Your task to perform on an android device: Empty the shopping cart on walmart.com. Search for bose soundlink on walmart.com, select the first entry, and add it to the cart. Image 0: 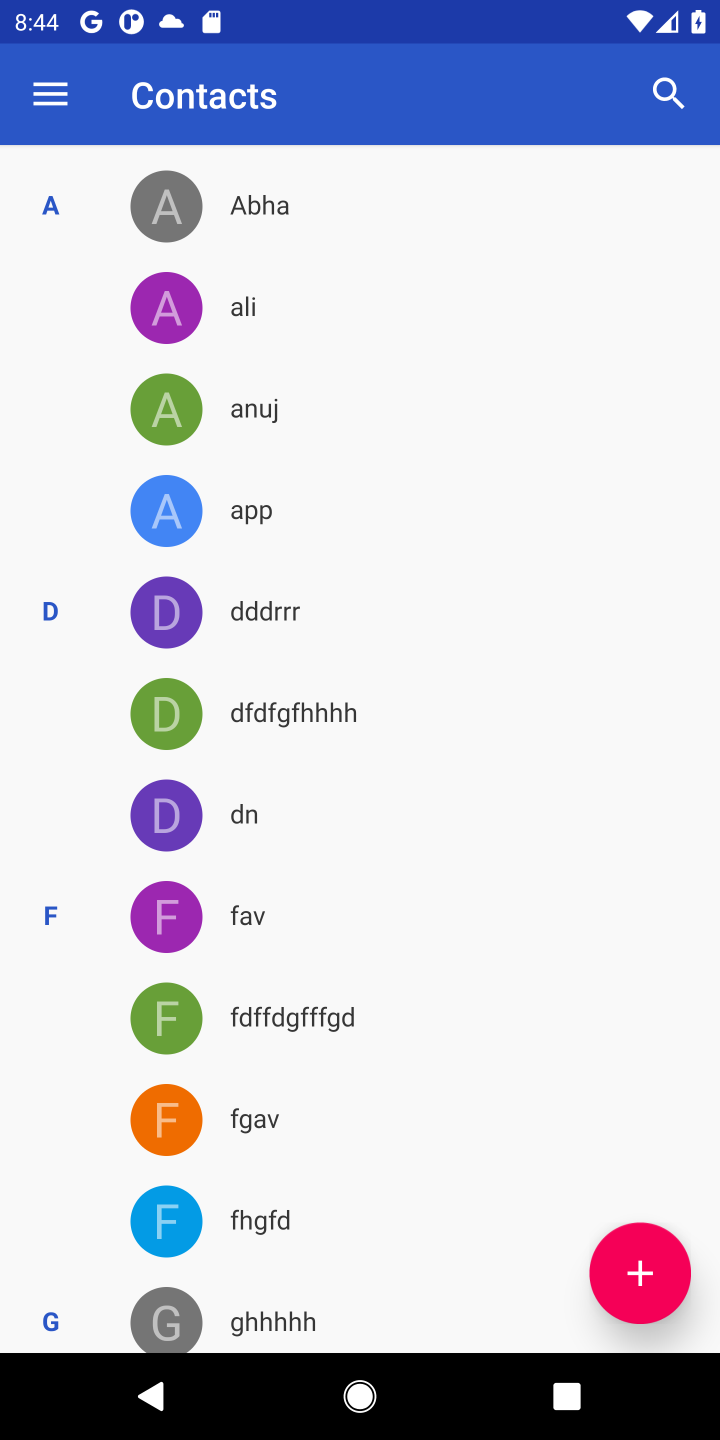
Step 0: press home button
Your task to perform on an android device: Empty the shopping cart on walmart.com. Search for bose soundlink on walmart.com, select the first entry, and add it to the cart. Image 1: 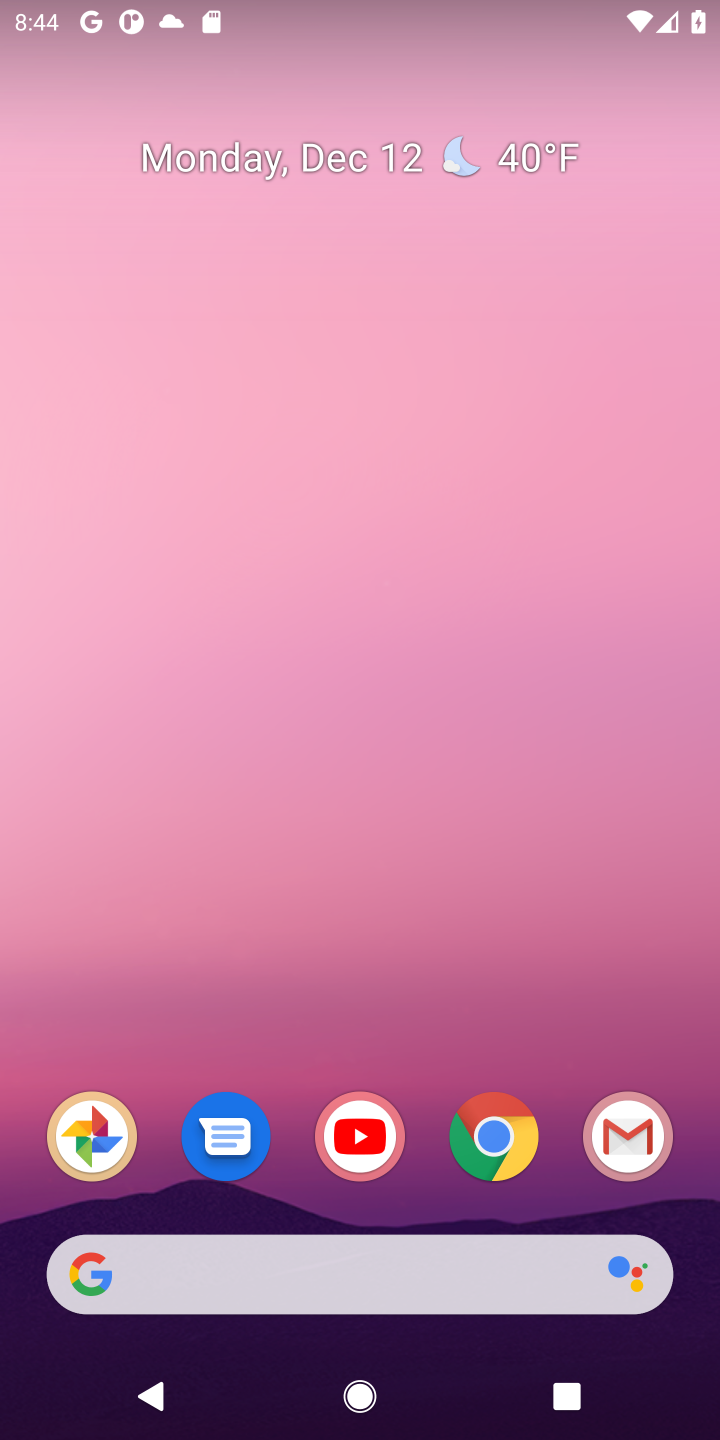
Step 1: click (497, 1141)
Your task to perform on an android device: Empty the shopping cart on walmart.com. Search for bose soundlink on walmart.com, select the first entry, and add it to the cart. Image 2: 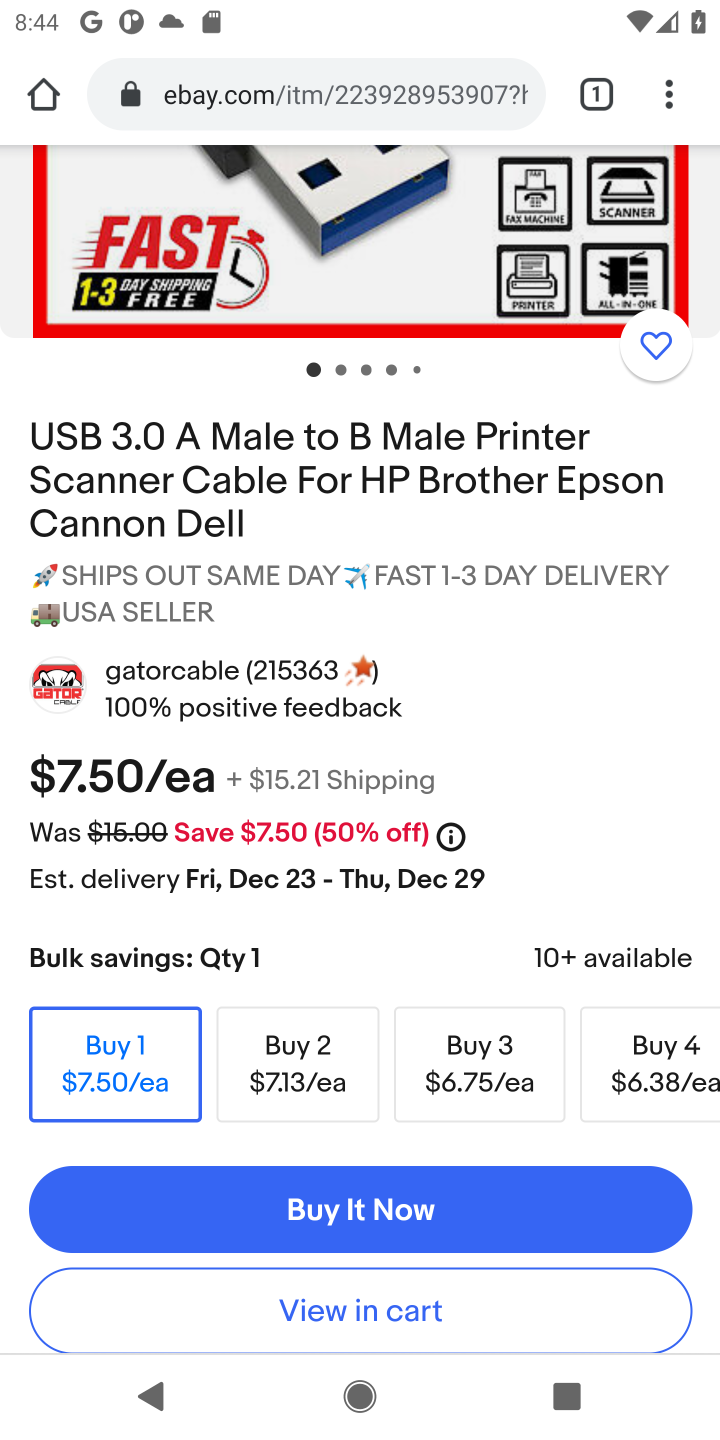
Step 2: click (315, 94)
Your task to perform on an android device: Empty the shopping cart on walmart.com. Search for bose soundlink on walmart.com, select the first entry, and add it to the cart. Image 3: 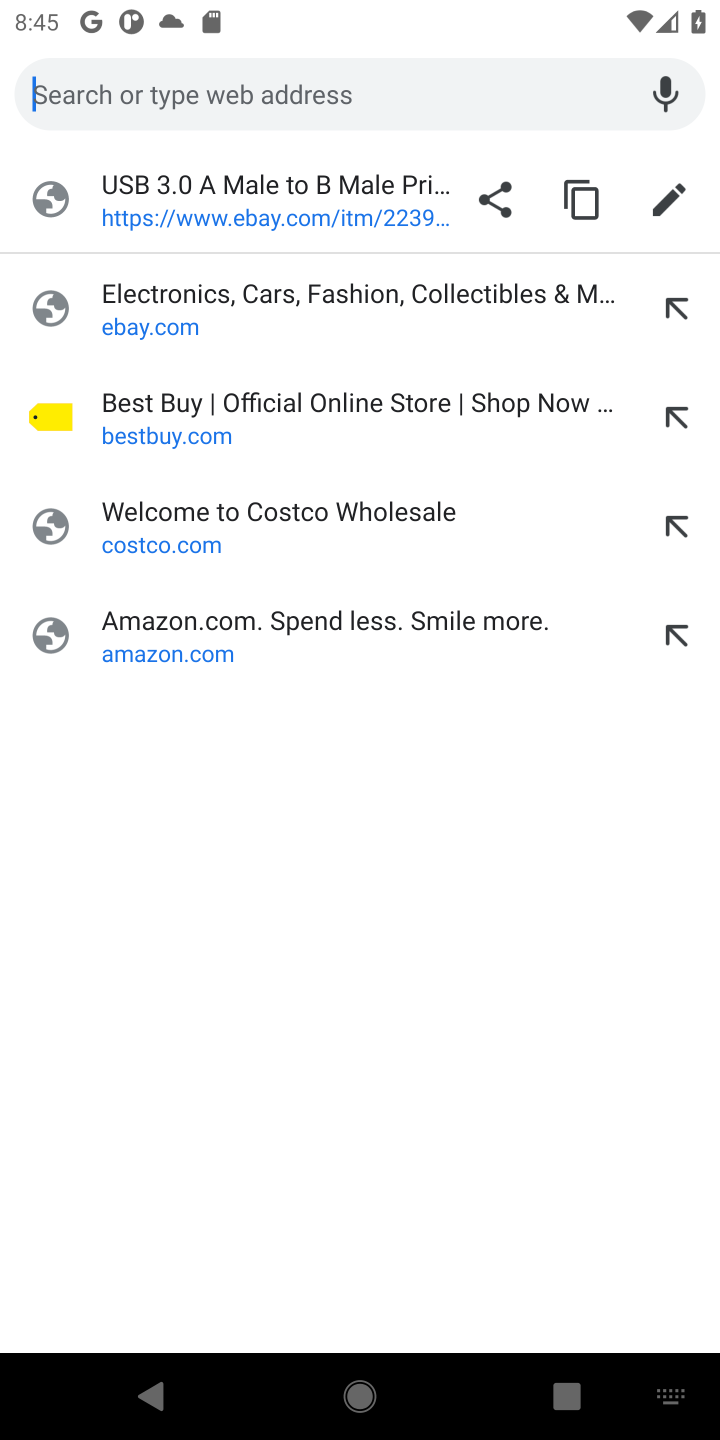
Step 3: type "walmart.com"
Your task to perform on an android device: Empty the shopping cart on walmart.com. Search for bose soundlink on walmart.com, select the first entry, and add it to the cart. Image 4: 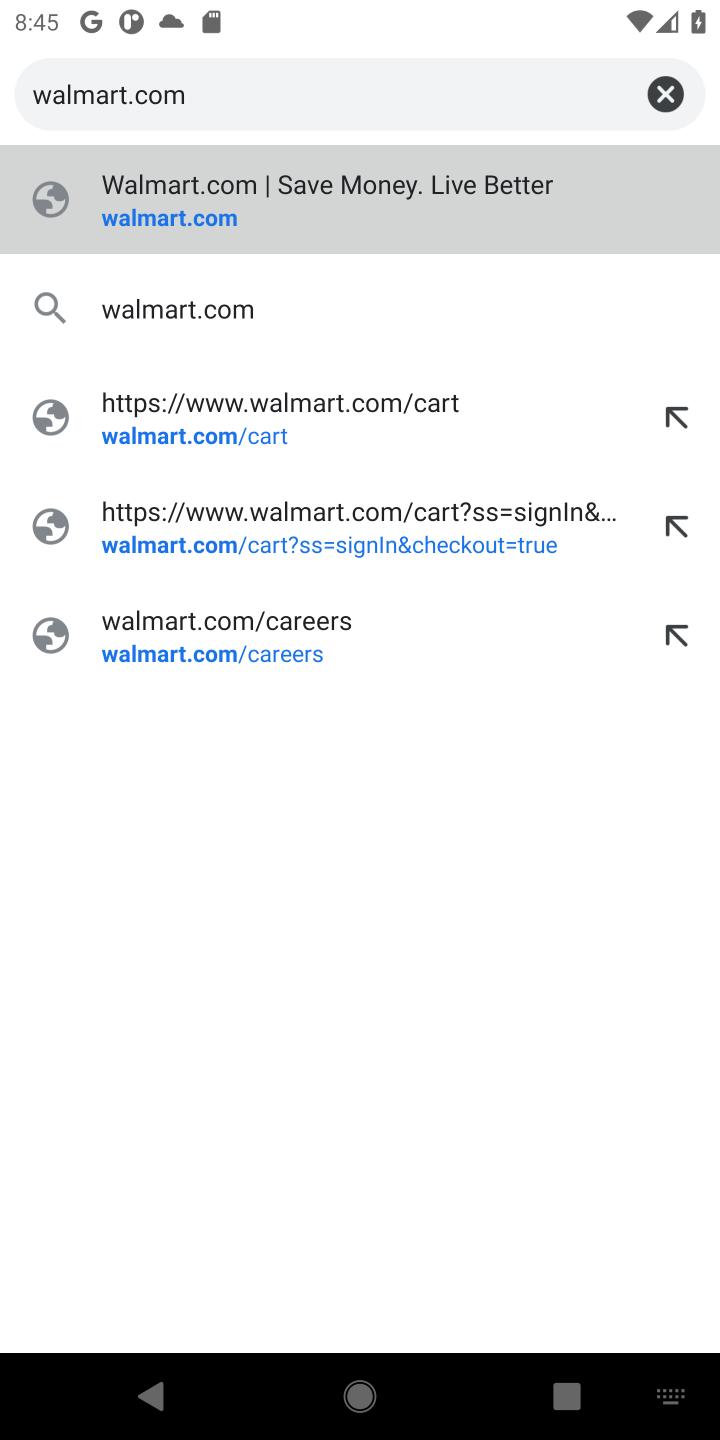
Step 4: click (134, 221)
Your task to perform on an android device: Empty the shopping cart on walmart.com. Search for bose soundlink on walmart.com, select the first entry, and add it to the cart. Image 5: 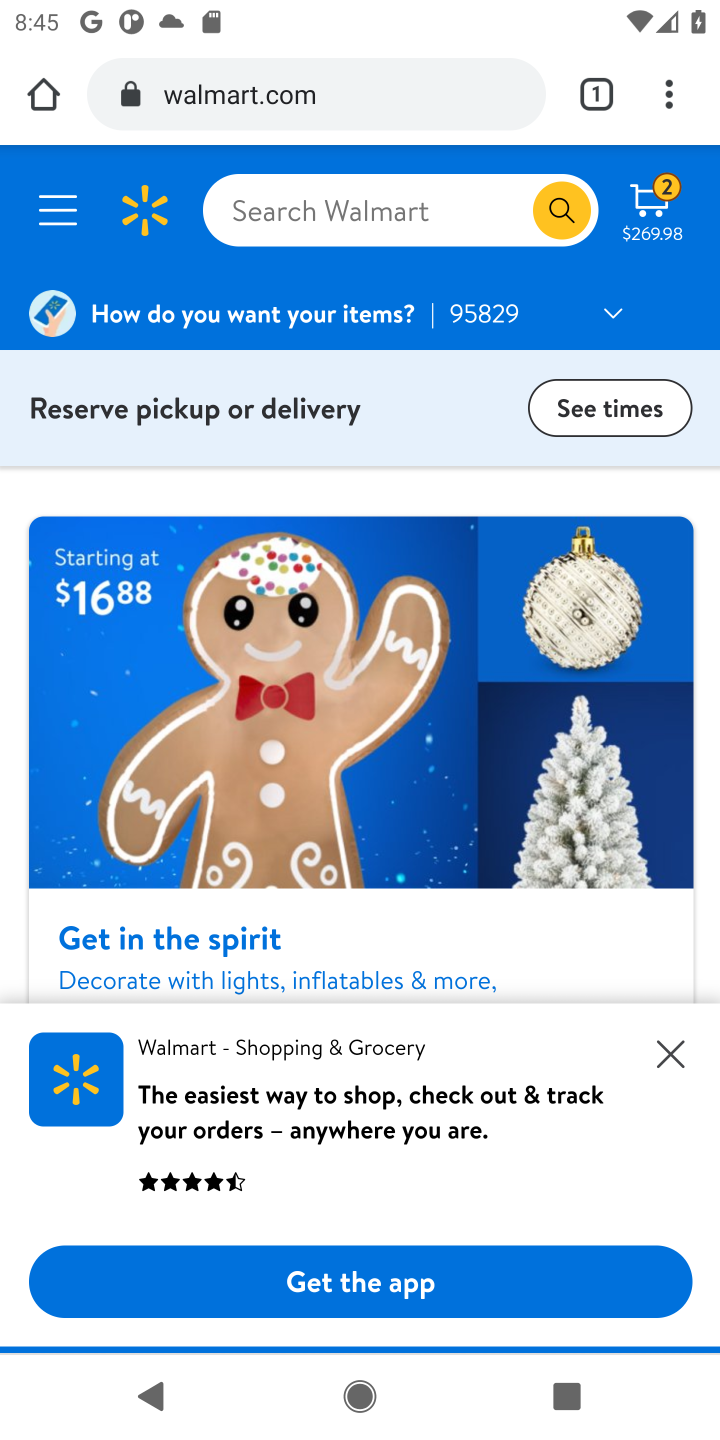
Step 5: click (656, 228)
Your task to perform on an android device: Empty the shopping cart on walmart.com. Search for bose soundlink on walmart.com, select the first entry, and add it to the cart. Image 6: 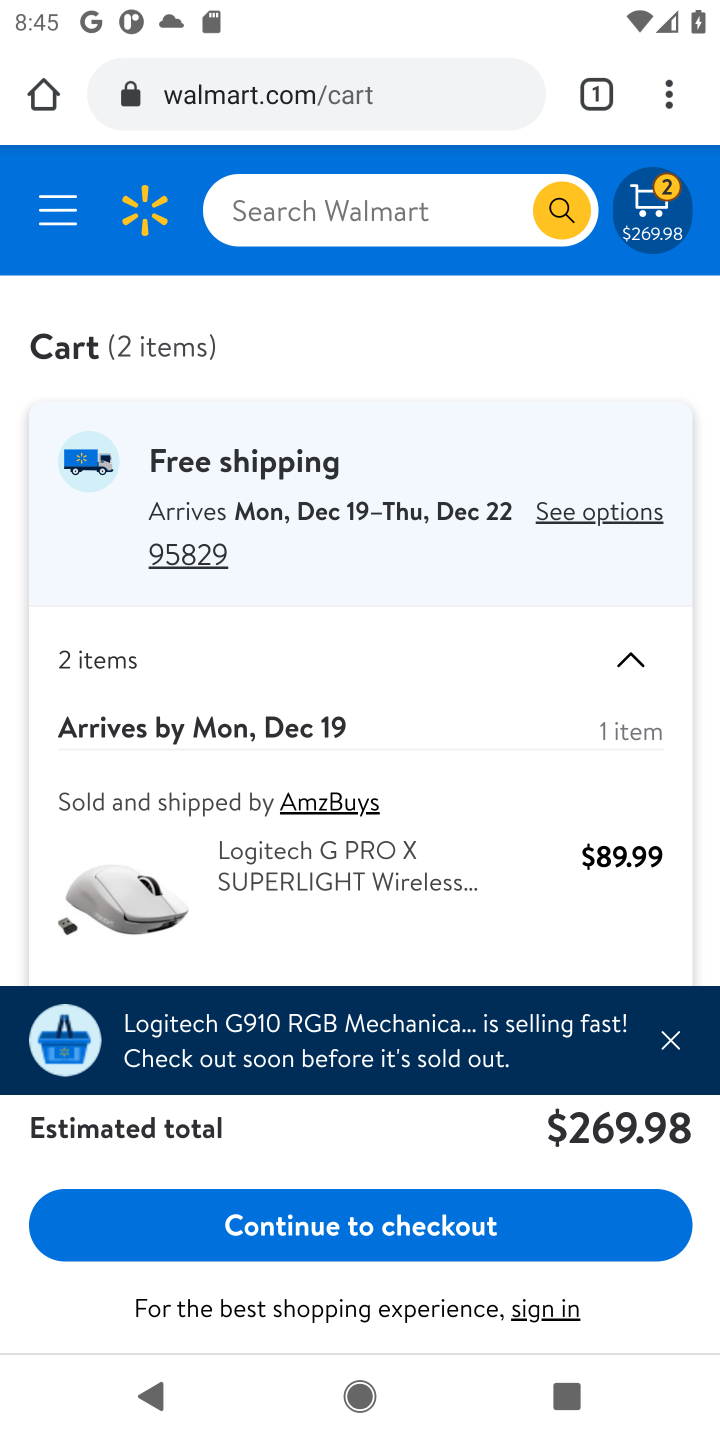
Step 6: drag from (468, 741) to (414, 314)
Your task to perform on an android device: Empty the shopping cart on walmart.com. Search for bose soundlink on walmart.com, select the first entry, and add it to the cart. Image 7: 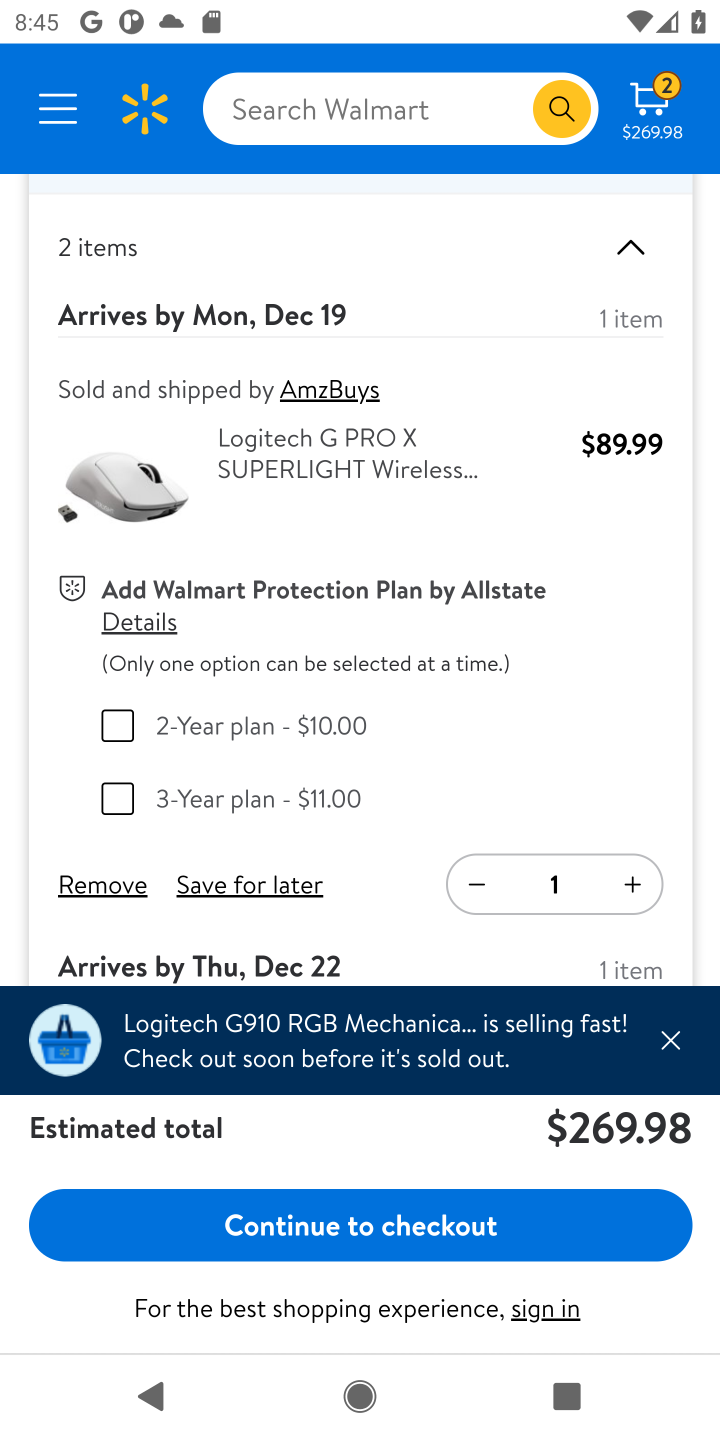
Step 7: click (108, 890)
Your task to perform on an android device: Empty the shopping cart on walmart.com. Search for bose soundlink on walmart.com, select the first entry, and add it to the cart. Image 8: 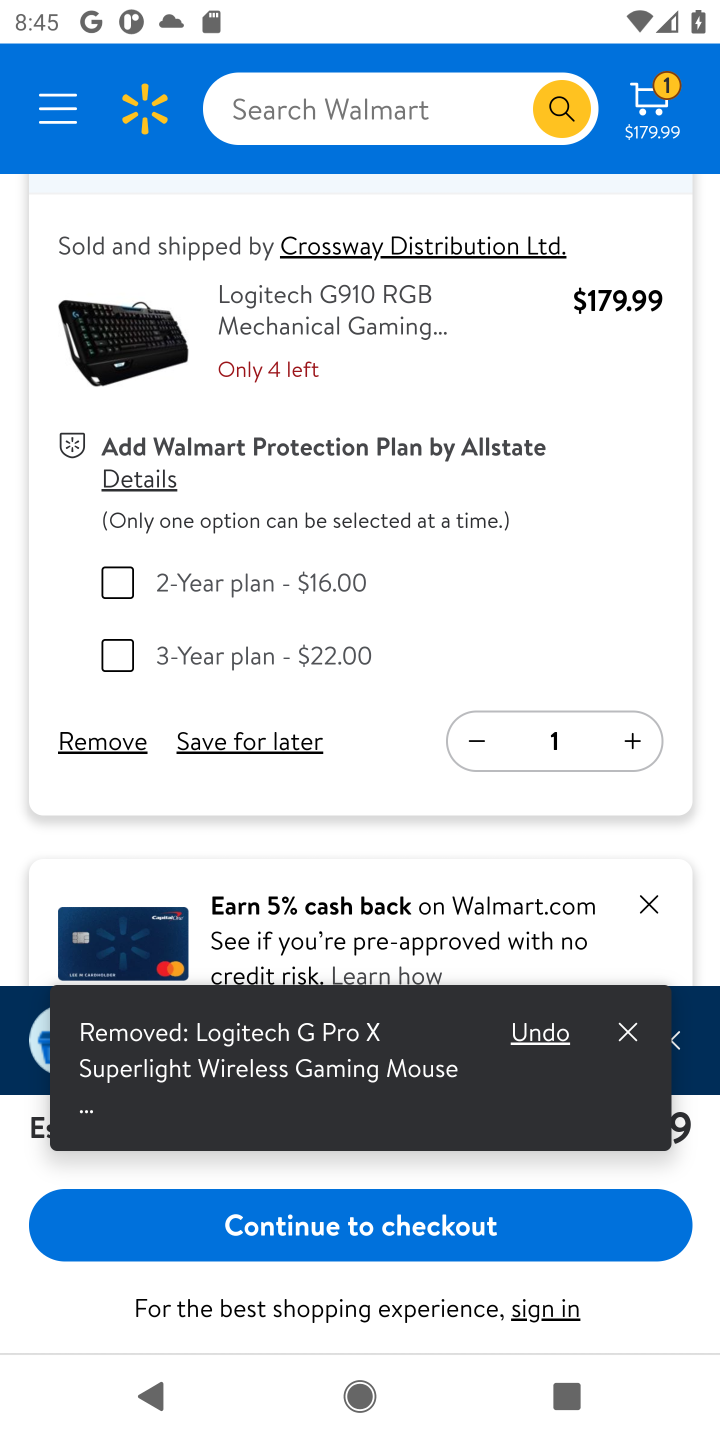
Step 8: click (74, 736)
Your task to perform on an android device: Empty the shopping cart on walmart.com. Search for bose soundlink on walmart.com, select the first entry, and add it to the cart. Image 9: 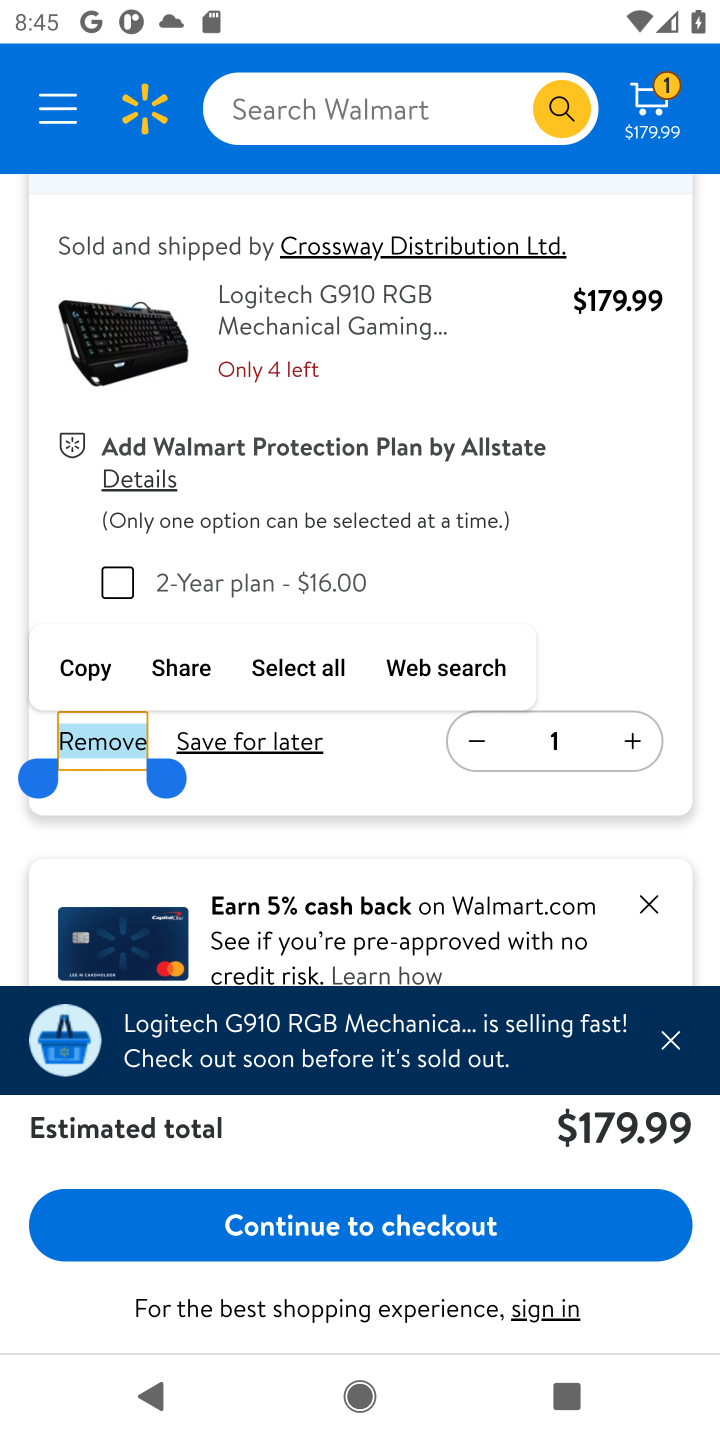
Step 9: click (91, 751)
Your task to perform on an android device: Empty the shopping cart on walmart.com. Search for bose soundlink on walmart.com, select the first entry, and add it to the cart. Image 10: 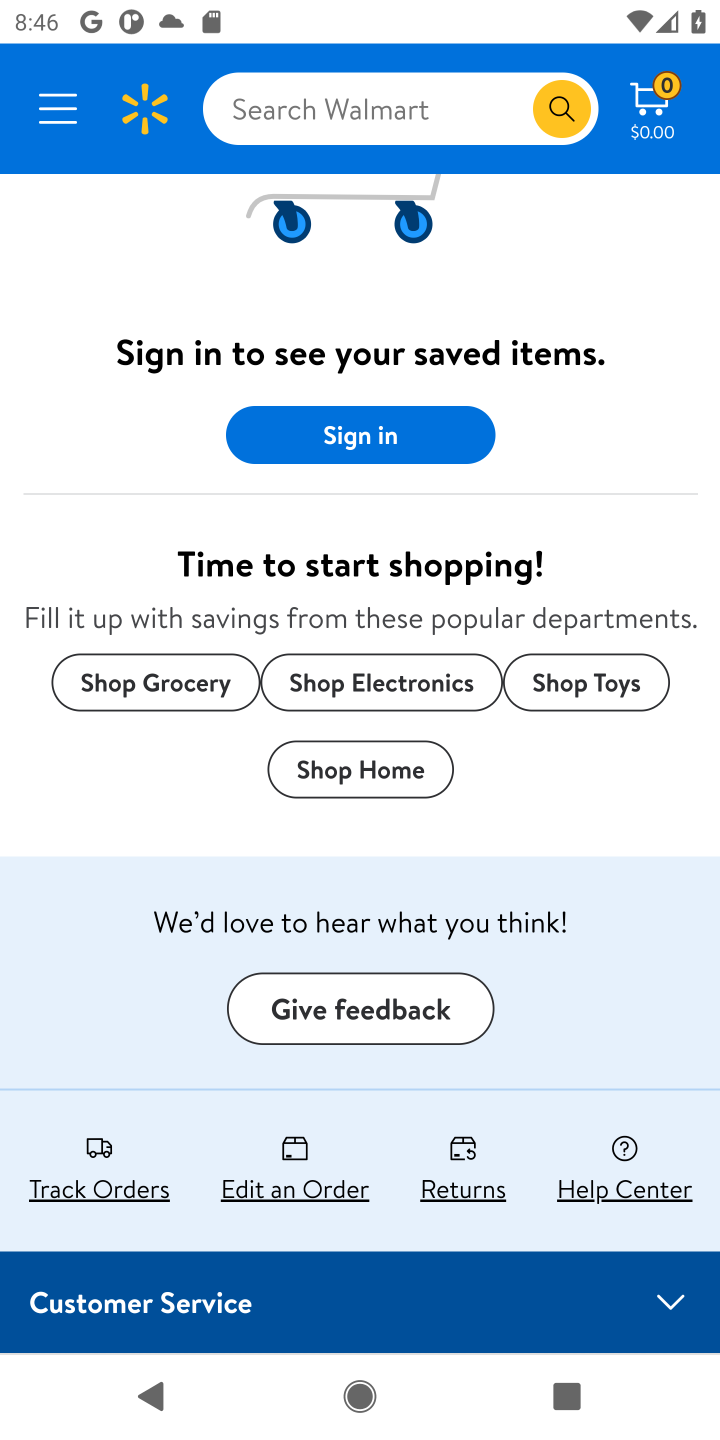
Step 10: click (327, 122)
Your task to perform on an android device: Empty the shopping cart on walmart.com. Search for bose soundlink on walmart.com, select the first entry, and add it to the cart. Image 11: 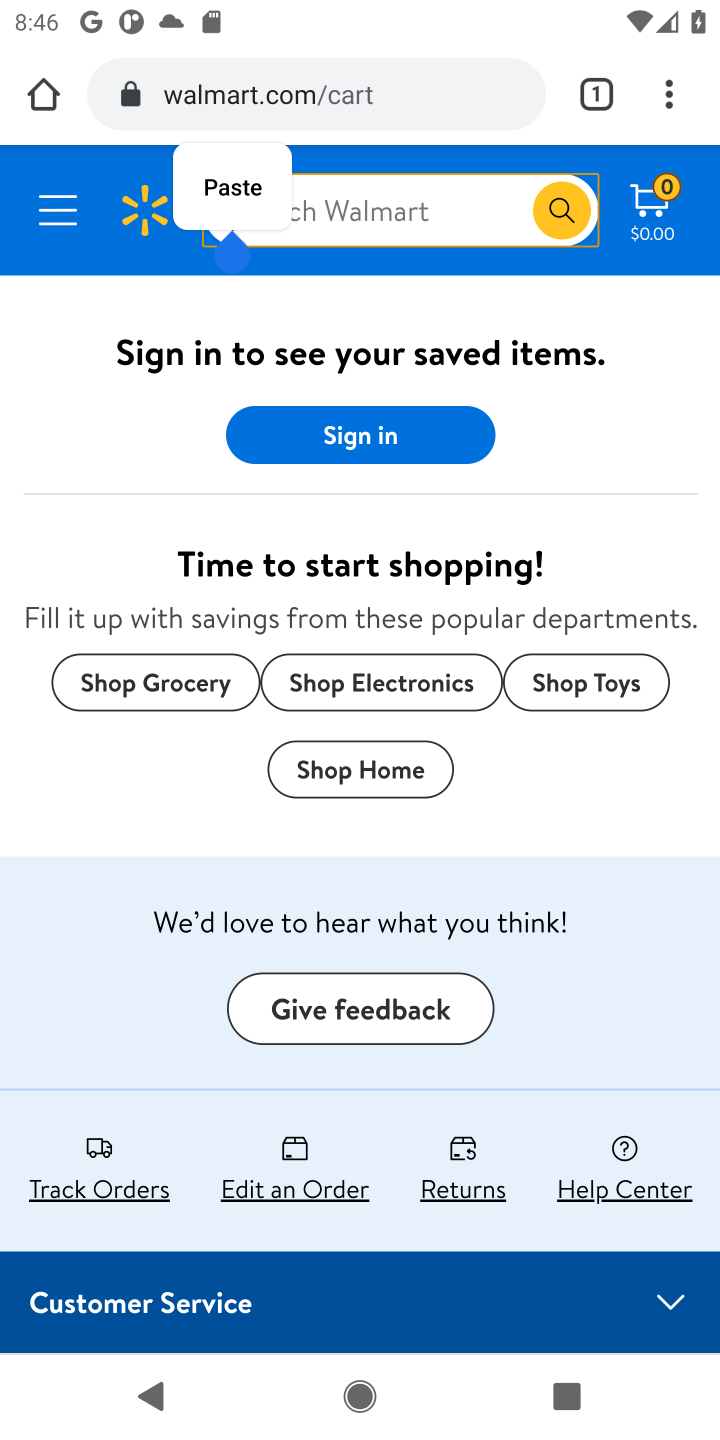
Step 11: type "bose soundlink"
Your task to perform on an android device: Empty the shopping cart on walmart.com. Search for bose soundlink on walmart.com, select the first entry, and add it to the cart. Image 12: 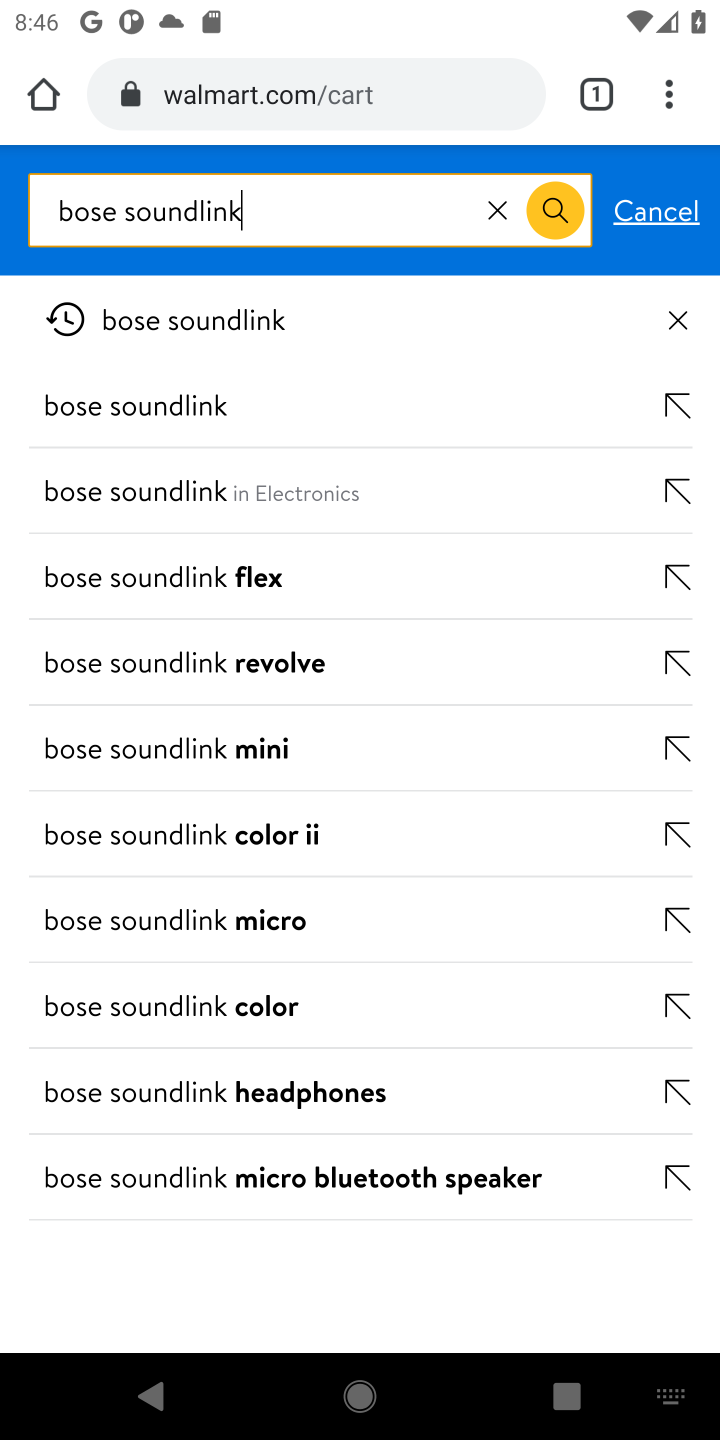
Step 12: click (140, 411)
Your task to perform on an android device: Empty the shopping cart on walmart.com. Search for bose soundlink on walmart.com, select the first entry, and add it to the cart. Image 13: 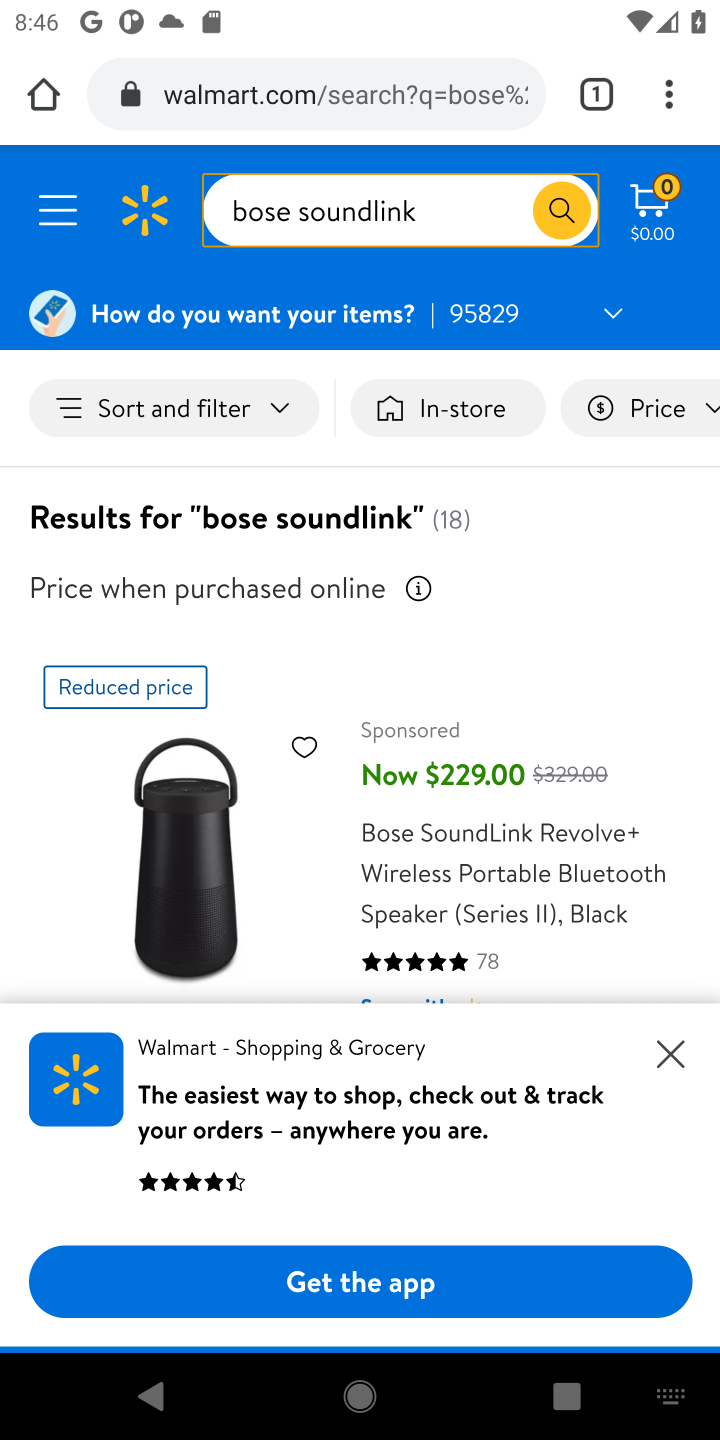
Step 13: drag from (285, 773) to (286, 524)
Your task to perform on an android device: Empty the shopping cart on walmart.com. Search for bose soundlink on walmart.com, select the first entry, and add it to the cart. Image 14: 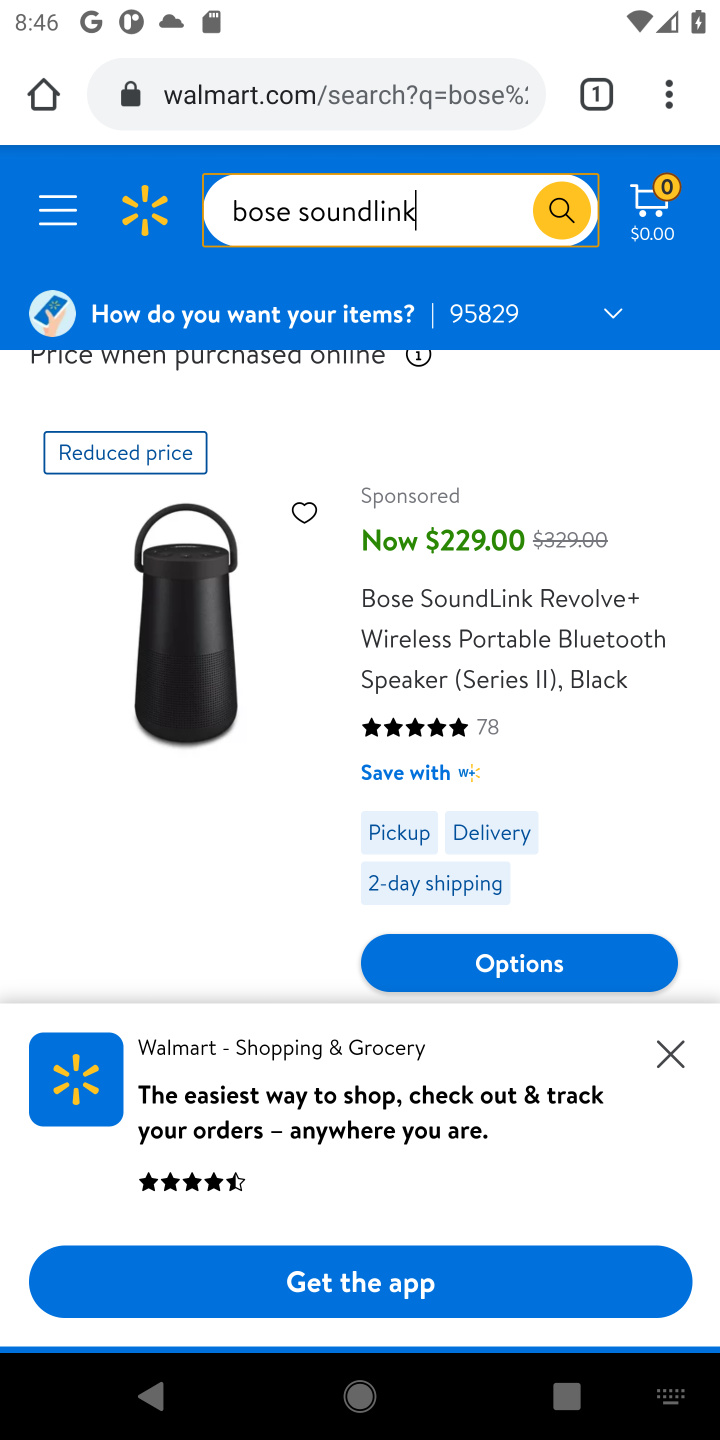
Step 14: click (480, 653)
Your task to perform on an android device: Empty the shopping cart on walmart.com. Search for bose soundlink on walmart.com, select the first entry, and add it to the cart. Image 15: 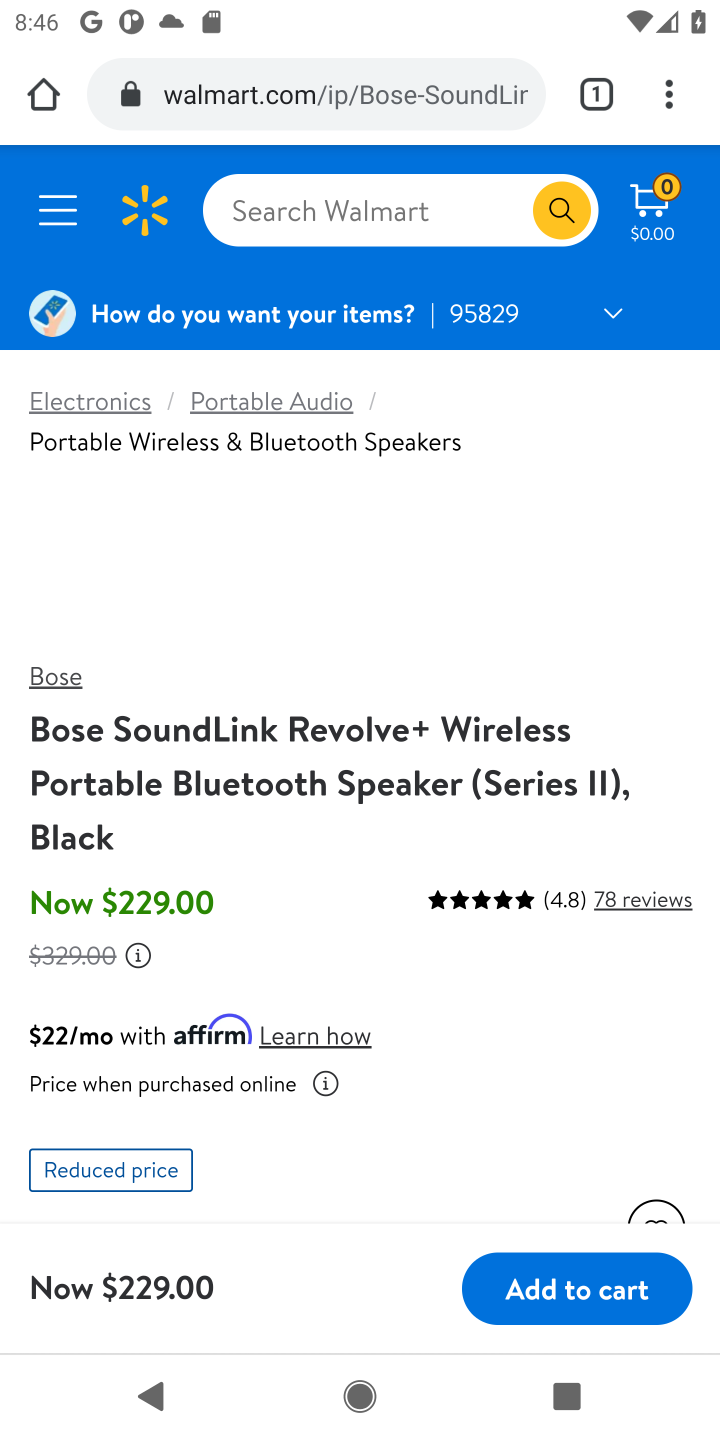
Step 15: click (559, 1275)
Your task to perform on an android device: Empty the shopping cart on walmart.com. Search for bose soundlink on walmart.com, select the first entry, and add it to the cart. Image 16: 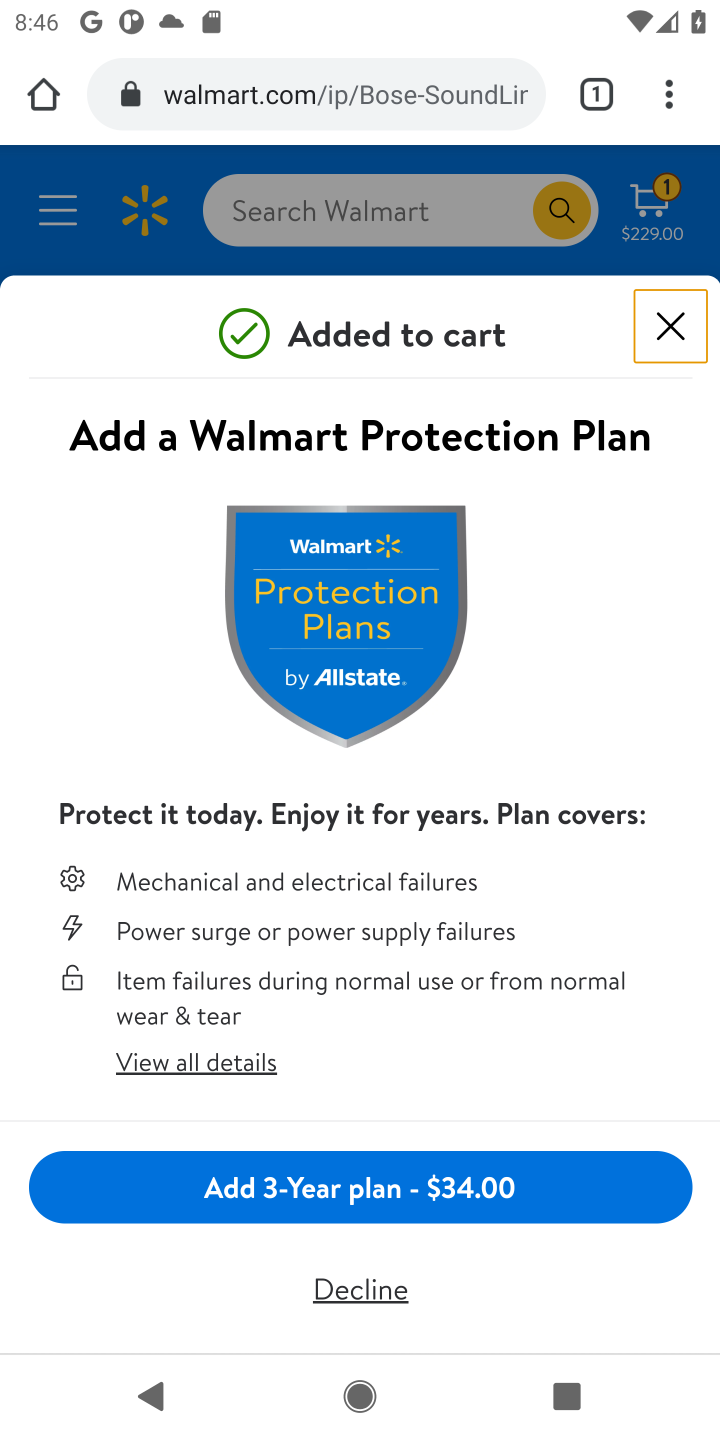
Step 16: task complete